Your task to perform on an android device: set an alarm Image 0: 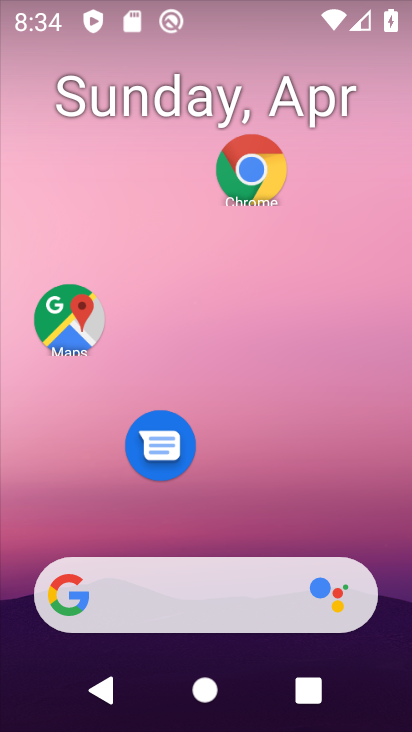
Step 0: drag from (236, 443) to (235, 3)
Your task to perform on an android device: set an alarm Image 1: 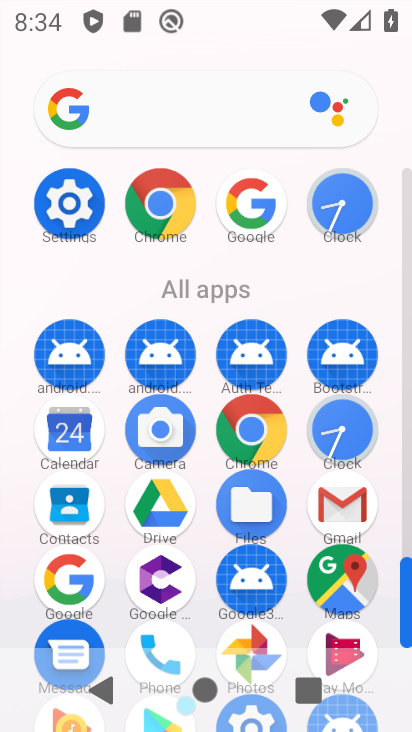
Step 1: click (337, 432)
Your task to perform on an android device: set an alarm Image 2: 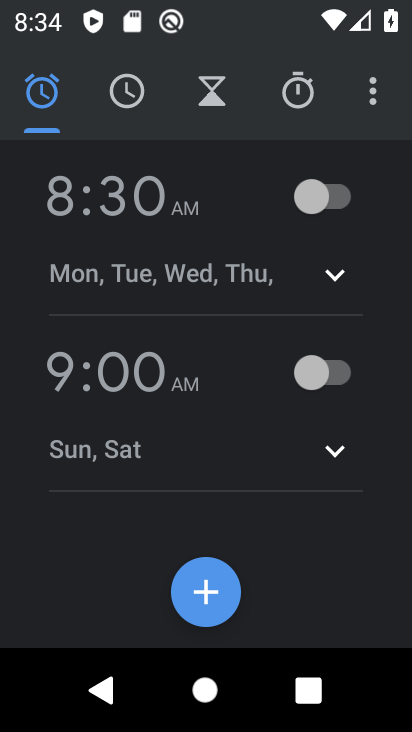
Step 2: click (340, 196)
Your task to perform on an android device: set an alarm Image 3: 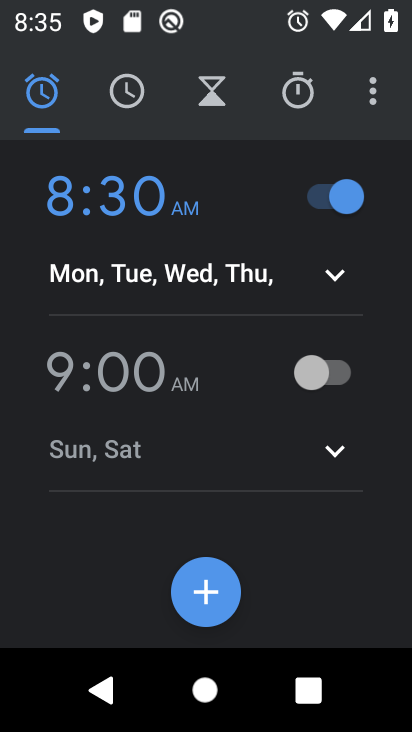
Step 3: task complete